Your task to perform on an android device: What is the recent news? Image 0: 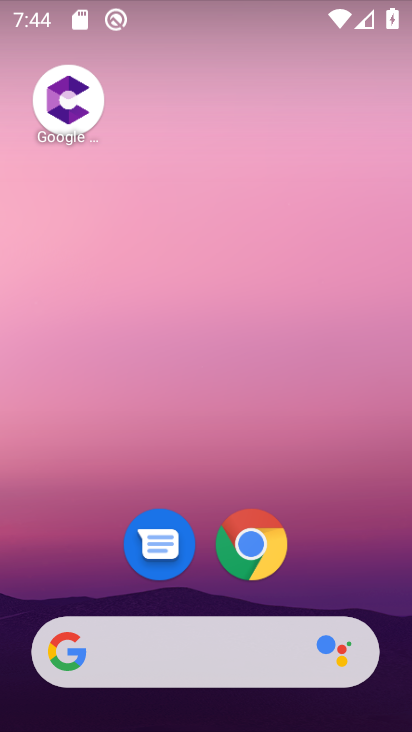
Step 0: drag from (350, 554) to (346, 96)
Your task to perform on an android device: What is the recent news? Image 1: 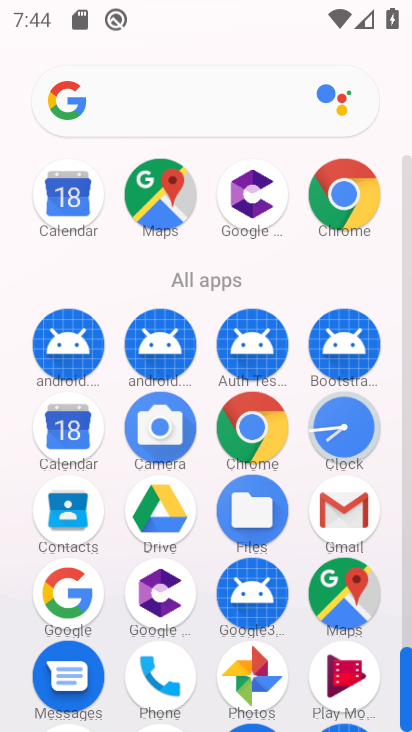
Step 1: click (337, 213)
Your task to perform on an android device: What is the recent news? Image 2: 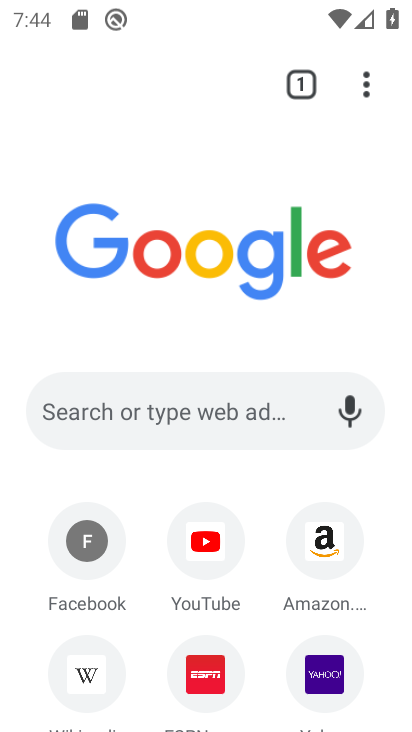
Step 2: click (211, 410)
Your task to perform on an android device: What is the recent news? Image 3: 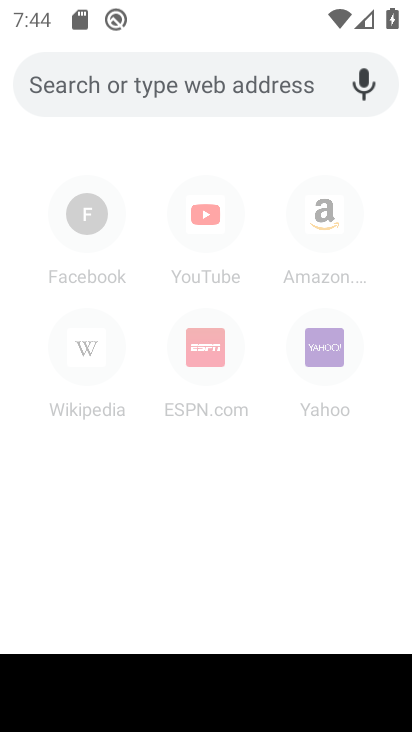
Step 3: type "What is the recent news?"
Your task to perform on an android device: What is the recent news? Image 4: 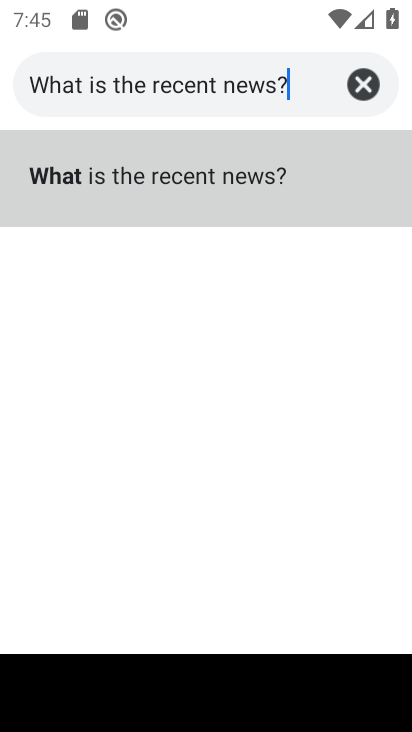
Step 4: click (304, 176)
Your task to perform on an android device: What is the recent news? Image 5: 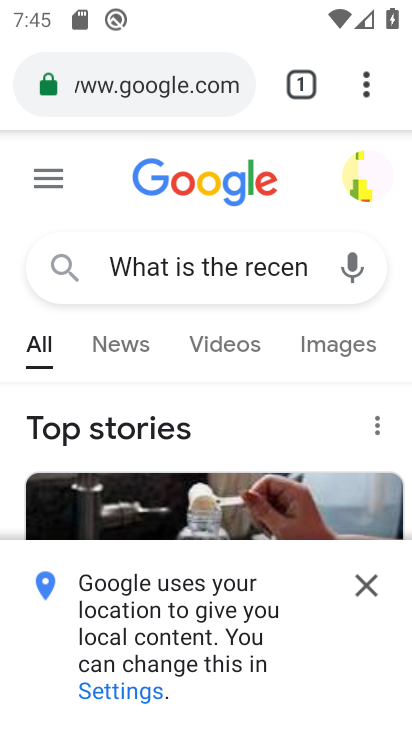
Step 5: click (358, 580)
Your task to perform on an android device: What is the recent news? Image 6: 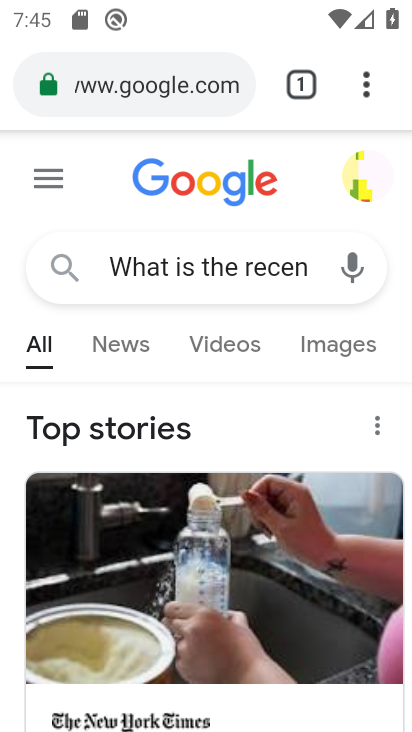
Step 6: task complete